Your task to perform on an android device: open wifi settings Image 0: 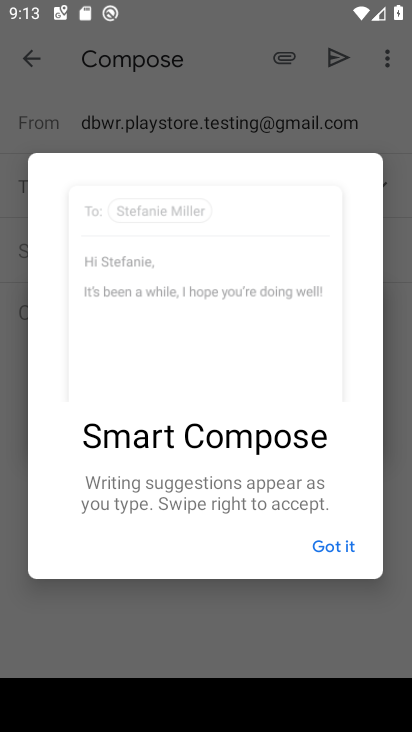
Step 0: press home button
Your task to perform on an android device: open wifi settings Image 1: 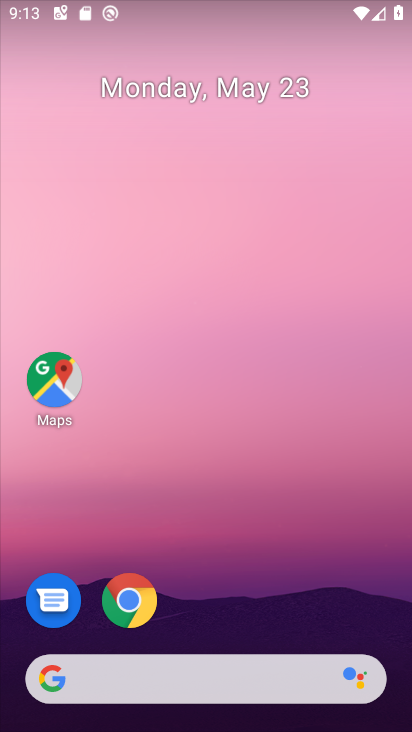
Step 1: drag from (218, 727) to (193, 48)
Your task to perform on an android device: open wifi settings Image 2: 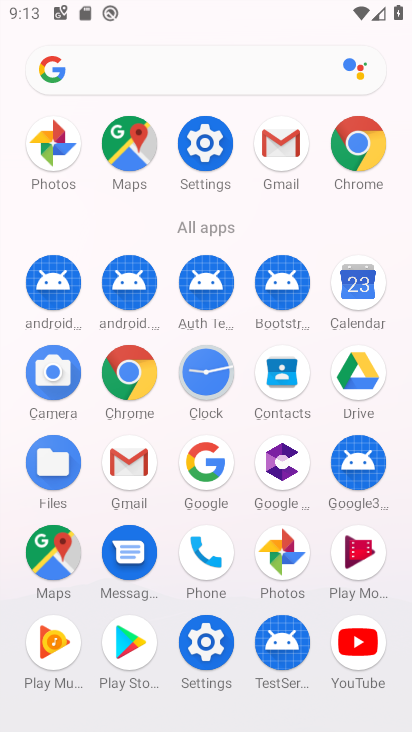
Step 2: click (202, 145)
Your task to perform on an android device: open wifi settings Image 3: 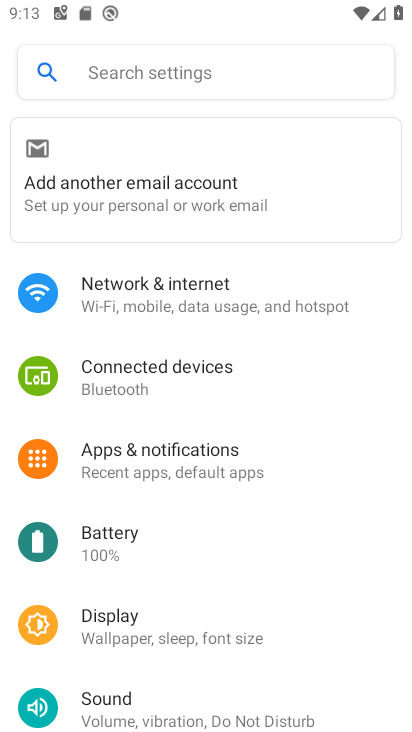
Step 3: click (128, 309)
Your task to perform on an android device: open wifi settings Image 4: 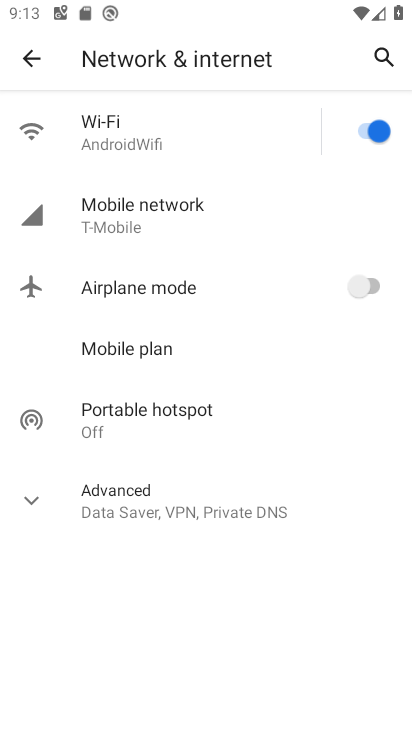
Step 4: click (116, 134)
Your task to perform on an android device: open wifi settings Image 5: 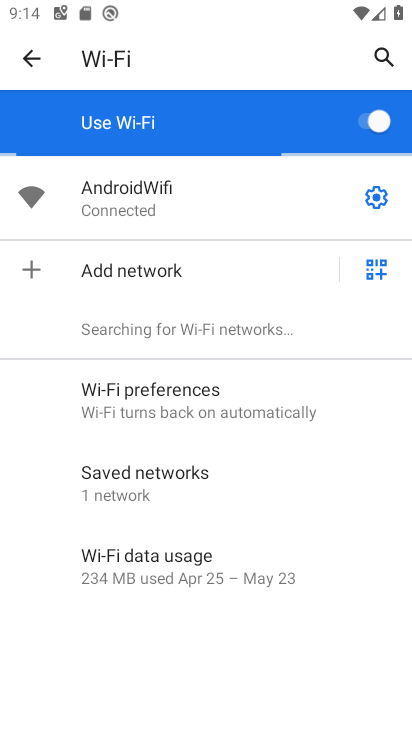
Step 5: task complete